Your task to perform on an android device: Play the last video I watched on Youtube Image 0: 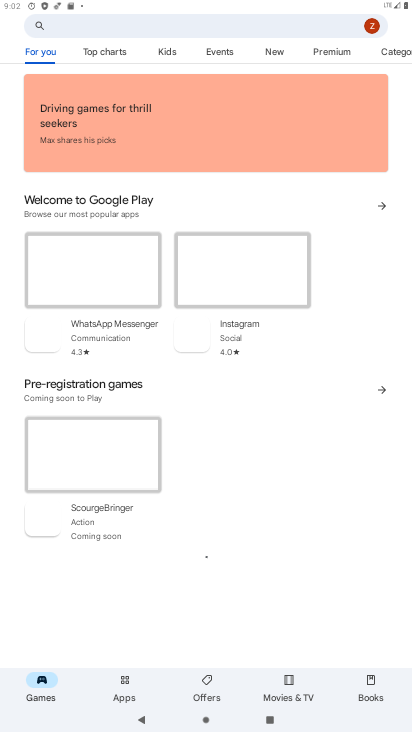
Step 0: drag from (83, 462) to (132, 275)
Your task to perform on an android device: Play the last video I watched on Youtube Image 1: 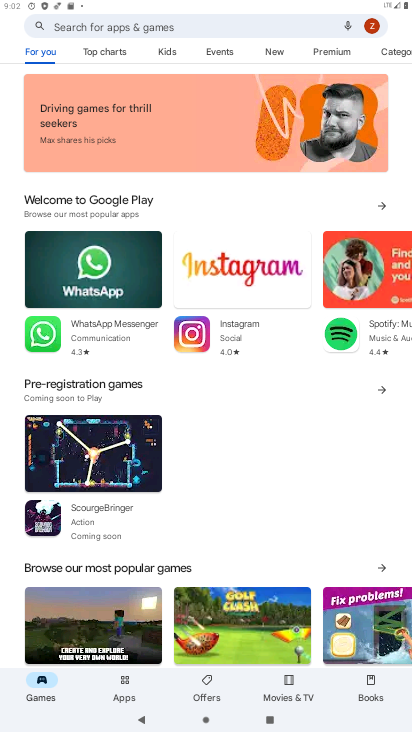
Step 1: press home button
Your task to perform on an android device: Play the last video I watched on Youtube Image 2: 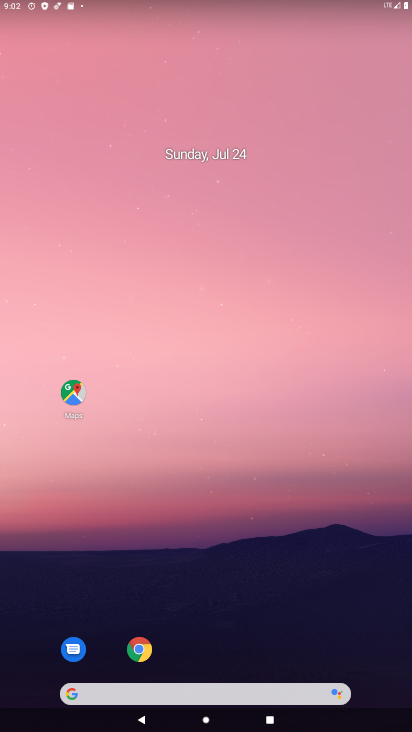
Step 2: drag from (40, 694) to (244, 4)
Your task to perform on an android device: Play the last video I watched on Youtube Image 3: 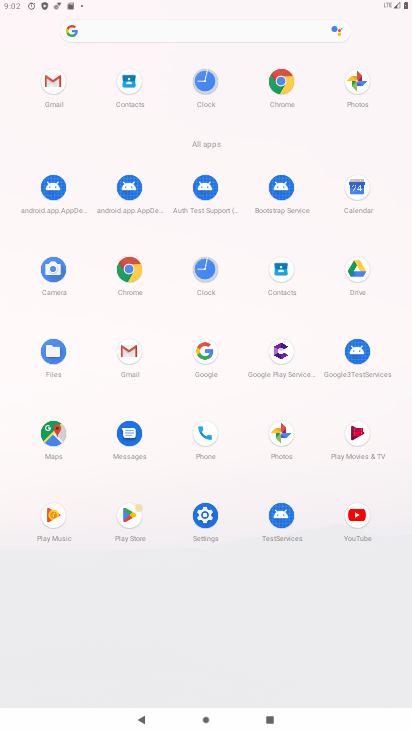
Step 3: click (368, 527)
Your task to perform on an android device: Play the last video I watched on Youtube Image 4: 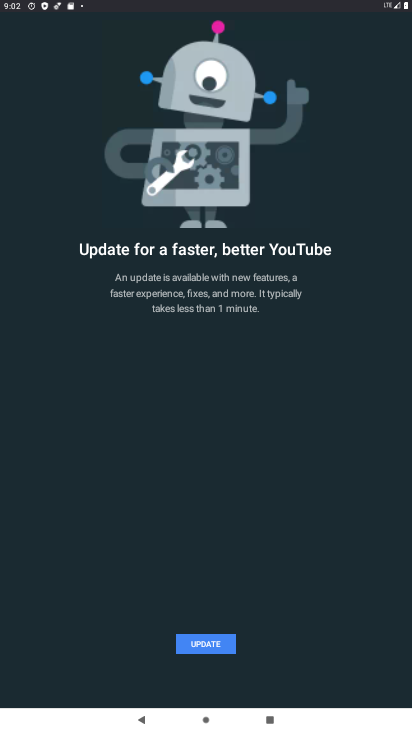
Step 4: click (236, 646)
Your task to perform on an android device: Play the last video I watched on Youtube Image 5: 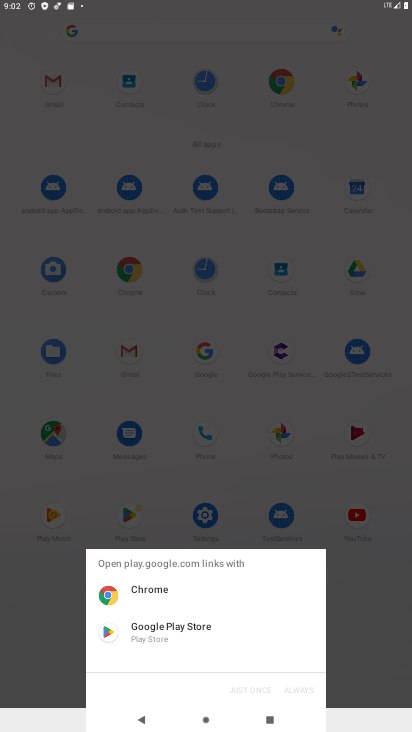
Step 5: click (171, 640)
Your task to perform on an android device: Play the last video I watched on Youtube Image 6: 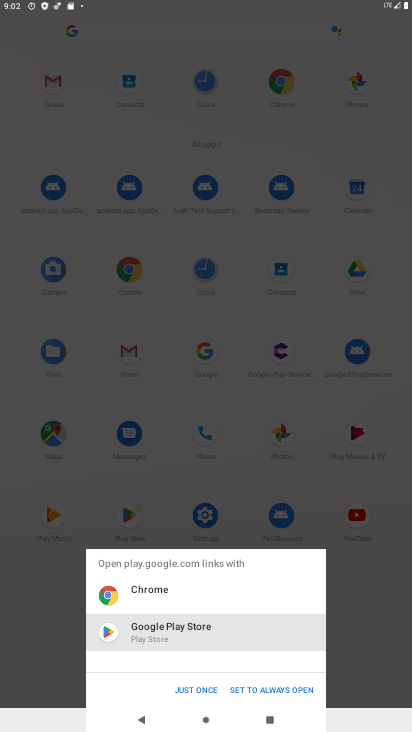
Step 6: click (211, 683)
Your task to perform on an android device: Play the last video I watched on Youtube Image 7: 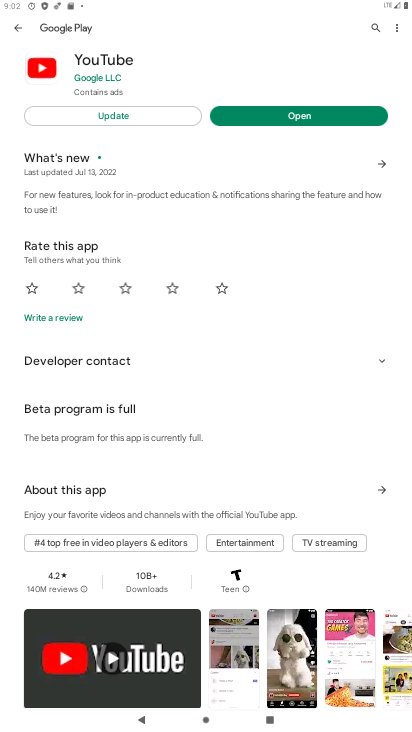
Step 7: click (349, 122)
Your task to perform on an android device: Play the last video I watched on Youtube Image 8: 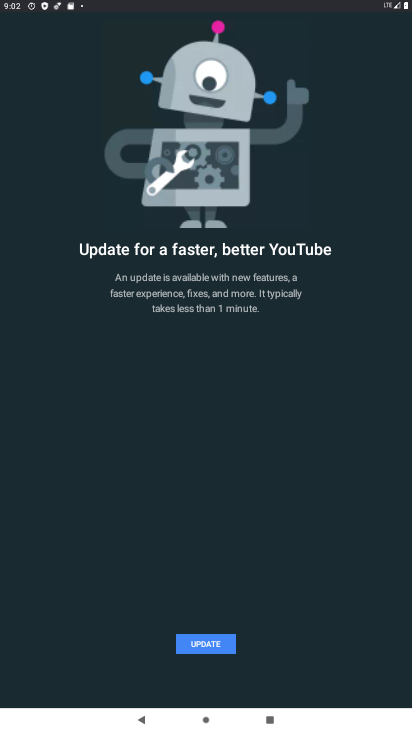
Step 8: task complete